Your task to perform on an android device: Go to Yahoo.com Image 0: 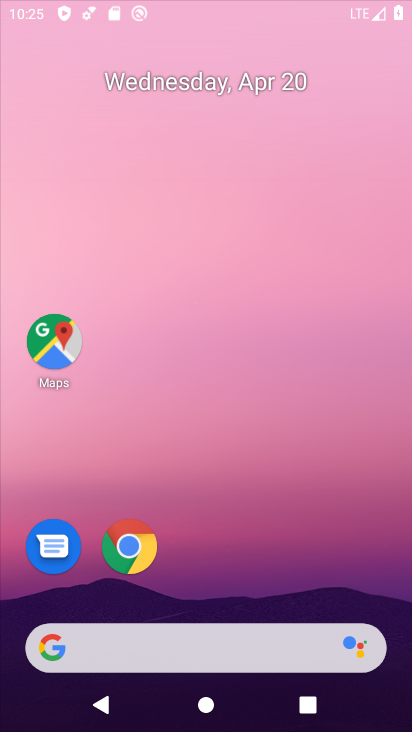
Step 0: click (117, 94)
Your task to perform on an android device: Go to Yahoo.com Image 1: 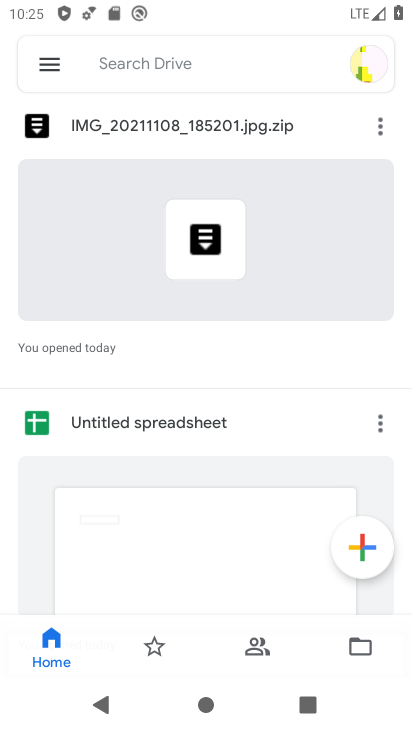
Step 1: press home button
Your task to perform on an android device: Go to Yahoo.com Image 2: 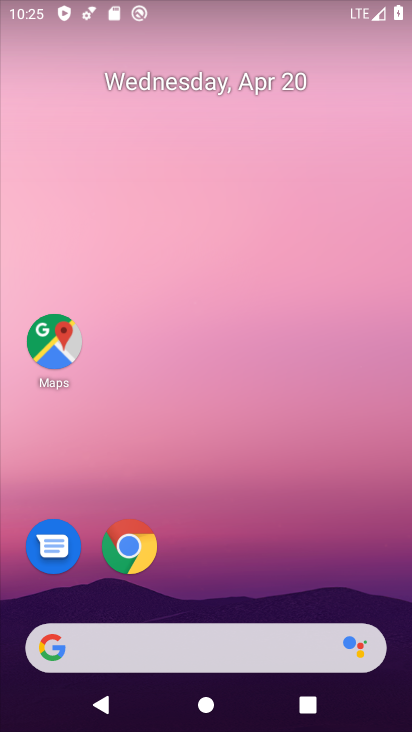
Step 2: click (134, 536)
Your task to perform on an android device: Go to Yahoo.com Image 3: 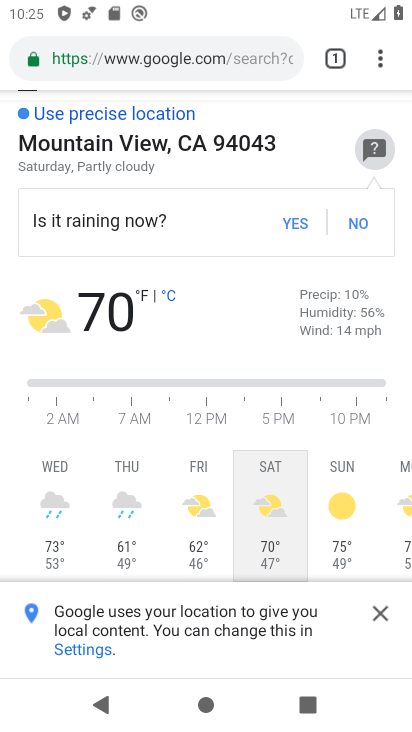
Step 3: click (344, 58)
Your task to perform on an android device: Go to Yahoo.com Image 4: 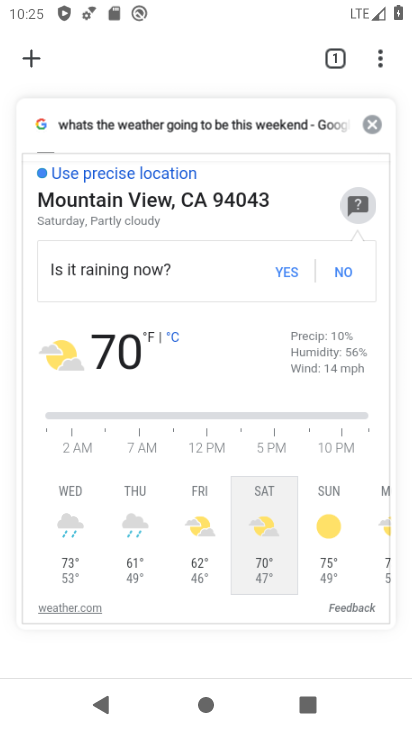
Step 4: click (34, 56)
Your task to perform on an android device: Go to Yahoo.com Image 5: 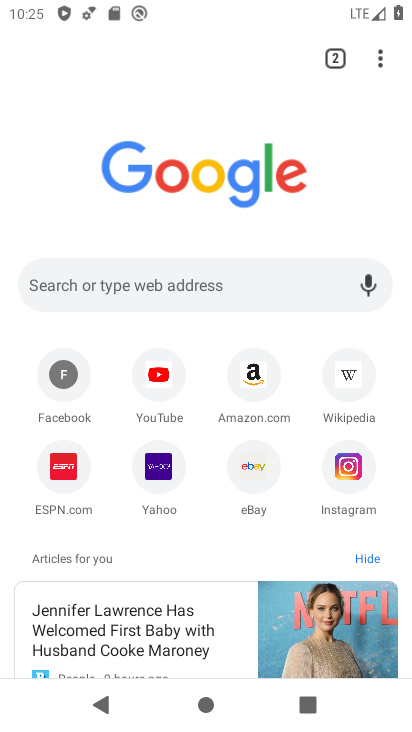
Step 5: click (169, 474)
Your task to perform on an android device: Go to Yahoo.com Image 6: 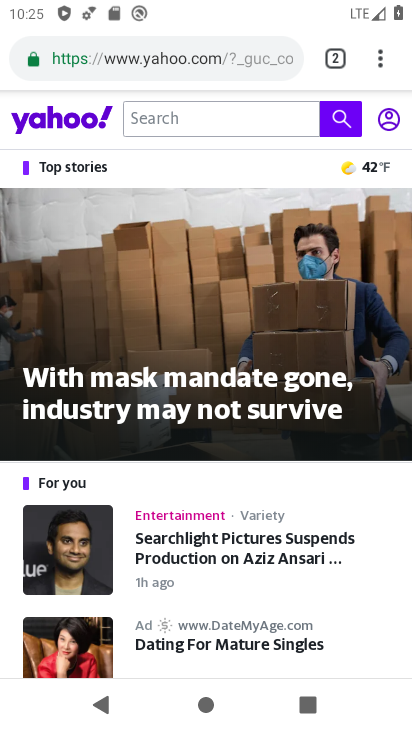
Step 6: task complete